Your task to perform on an android device: check battery use Image 0: 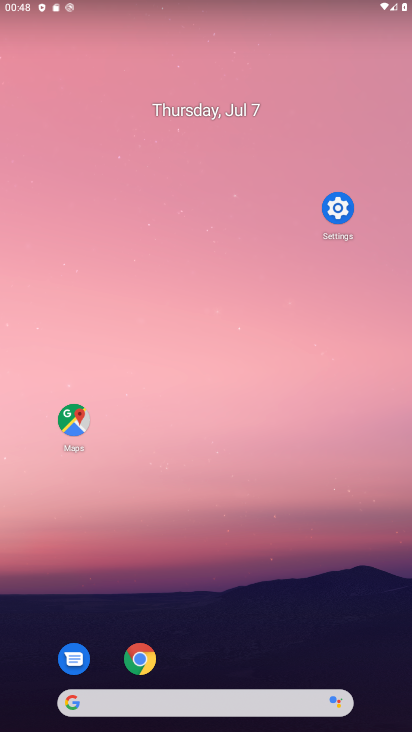
Step 0: drag from (244, 716) to (182, 169)
Your task to perform on an android device: check battery use Image 1: 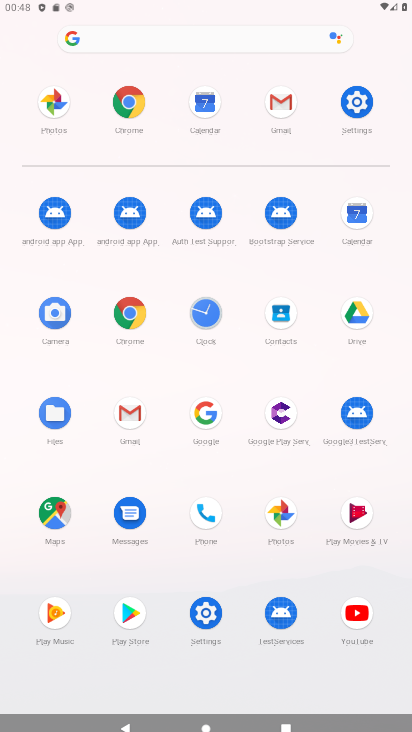
Step 1: click (340, 113)
Your task to perform on an android device: check battery use Image 2: 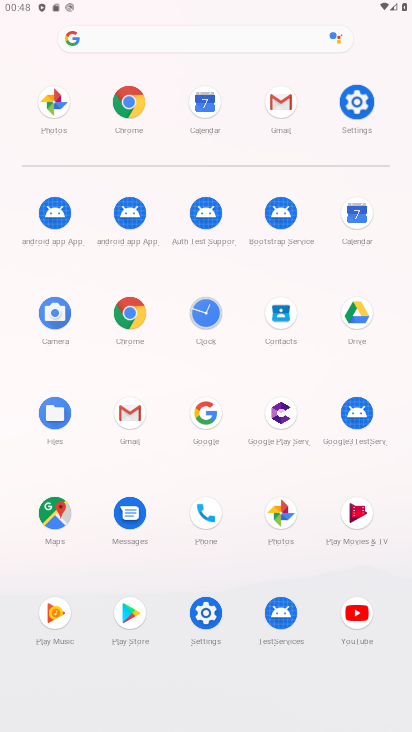
Step 2: click (350, 110)
Your task to perform on an android device: check battery use Image 3: 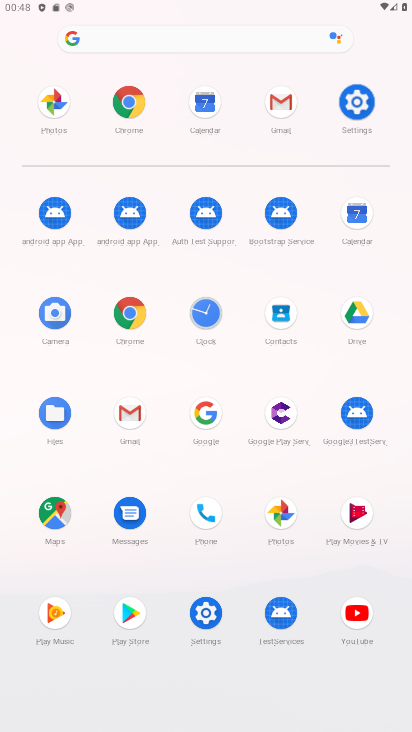
Step 3: click (350, 110)
Your task to perform on an android device: check battery use Image 4: 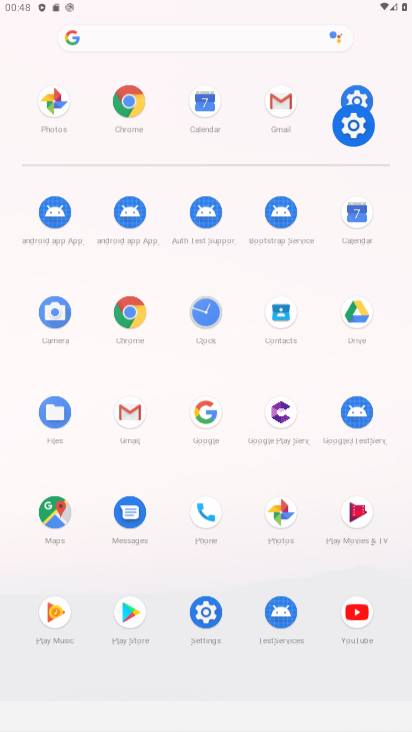
Step 4: click (350, 110)
Your task to perform on an android device: check battery use Image 5: 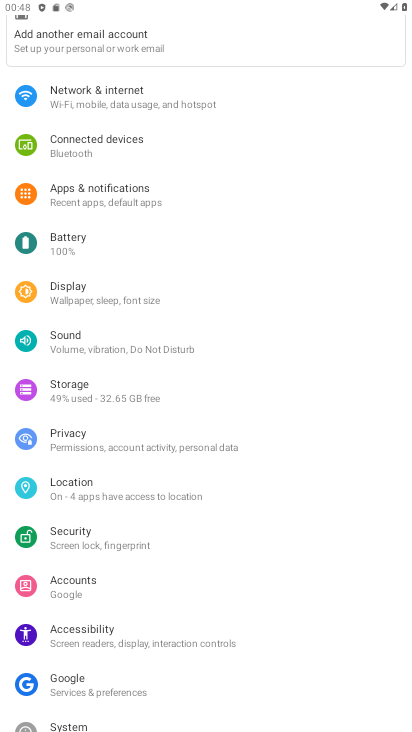
Step 5: click (60, 240)
Your task to perform on an android device: check battery use Image 6: 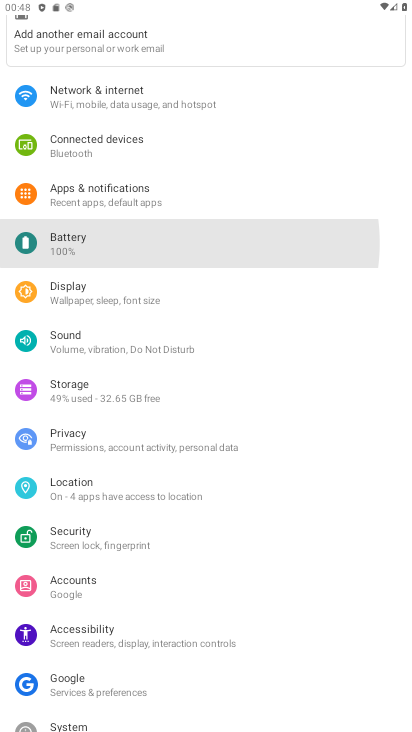
Step 6: click (68, 235)
Your task to perform on an android device: check battery use Image 7: 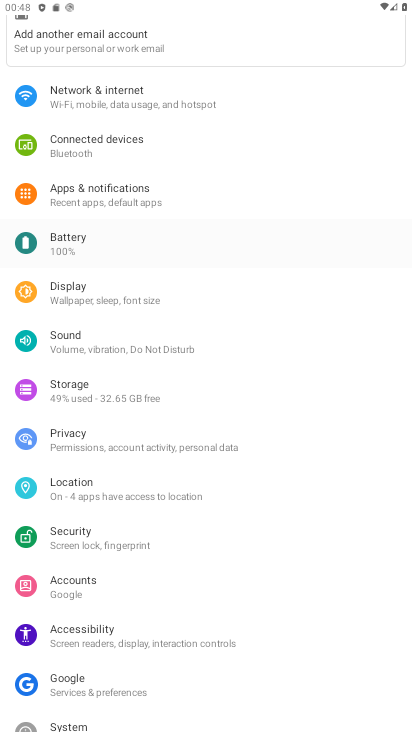
Step 7: click (72, 234)
Your task to perform on an android device: check battery use Image 8: 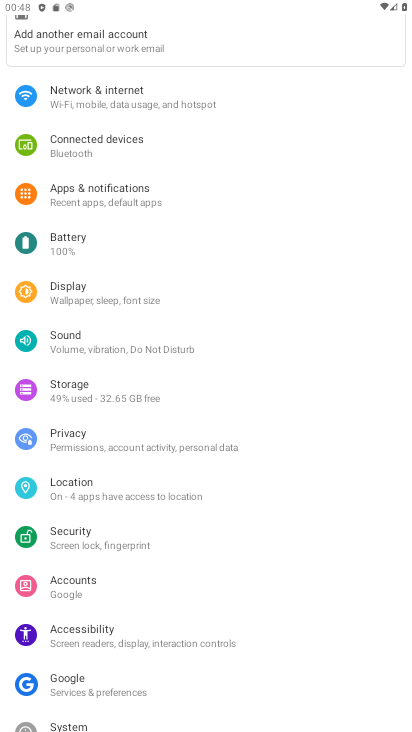
Step 8: click (76, 231)
Your task to perform on an android device: check battery use Image 9: 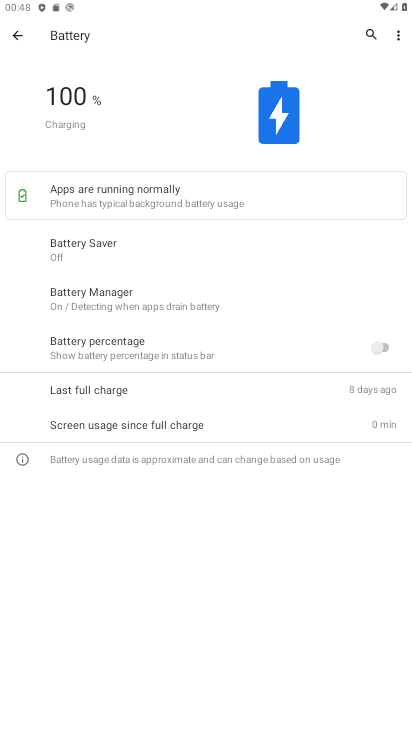
Step 9: task complete